Your task to perform on an android device: Go to network settings Image 0: 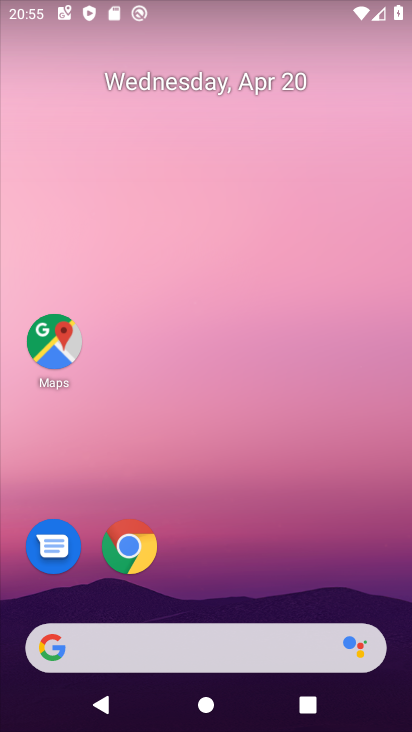
Step 0: drag from (365, 552) to (256, 5)
Your task to perform on an android device: Go to network settings Image 1: 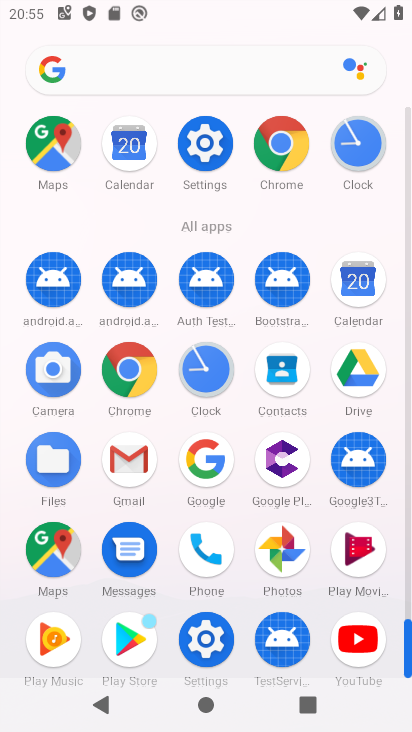
Step 1: click (204, 132)
Your task to perform on an android device: Go to network settings Image 2: 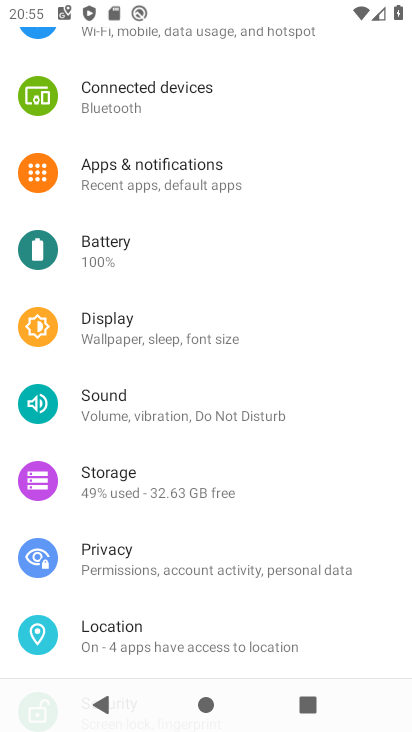
Step 2: drag from (203, 94) to (185, 452)
Your task to perform on an android device: Go to network settings Image 3: 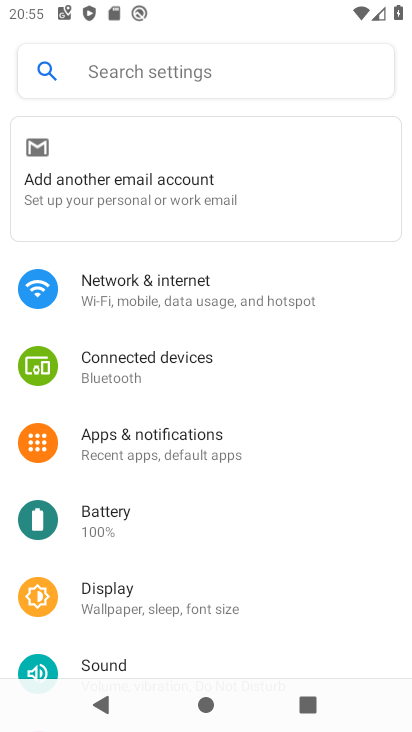
Step 3: click (169, 304)
Your task to perform on an android device: Go to network settings Image 4: 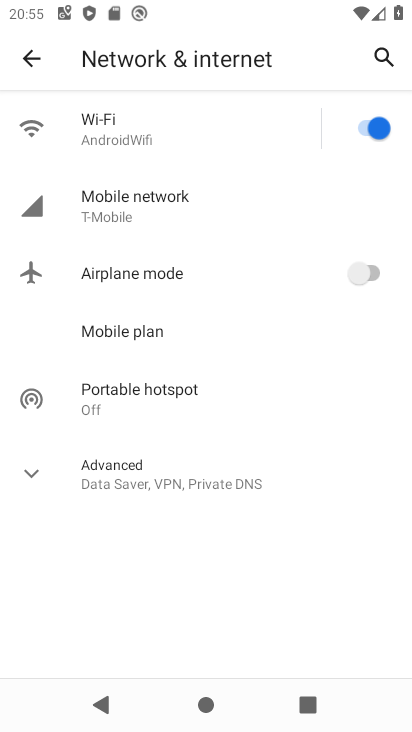
Step 4: task complete